Your task to perform on an android device: Go to calendar. Show me events next week Image 0: 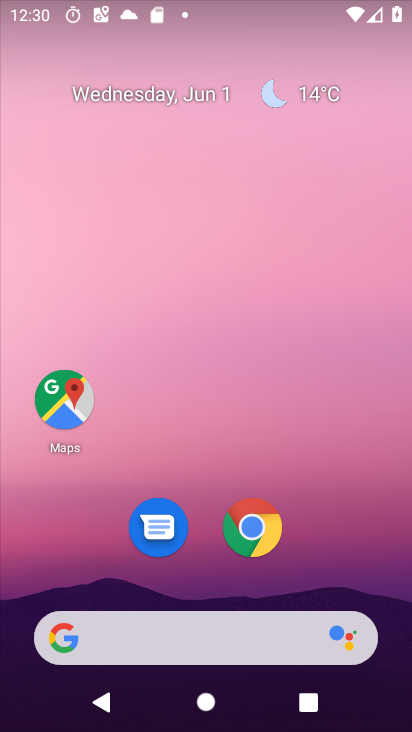
Step 0: drag from (364, 392) to (380, 0)
Your task to perform on an android device: Go to calendar. Show me events next week Image 1: 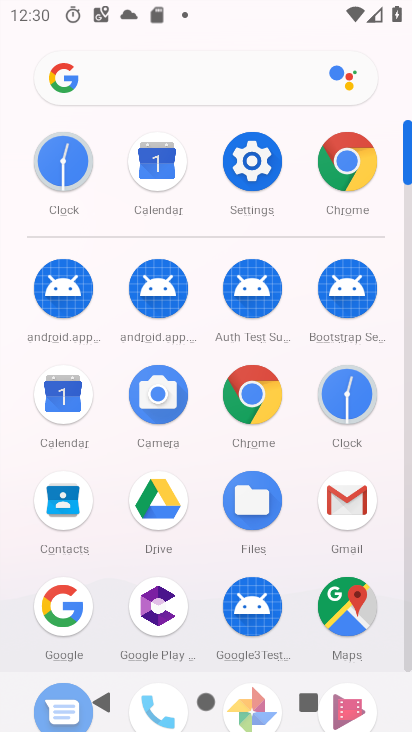
Step 1: click (151, 161)
Your task to perform on an android device: Go to calendar. Show me events next week Image 2: 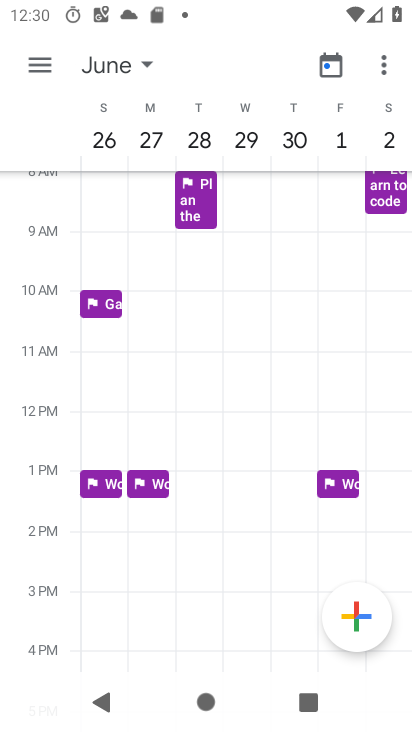
Step 2: click (321, 67)
Your task to perform on an android device: Go to calendar. Show me events next week Image 3: 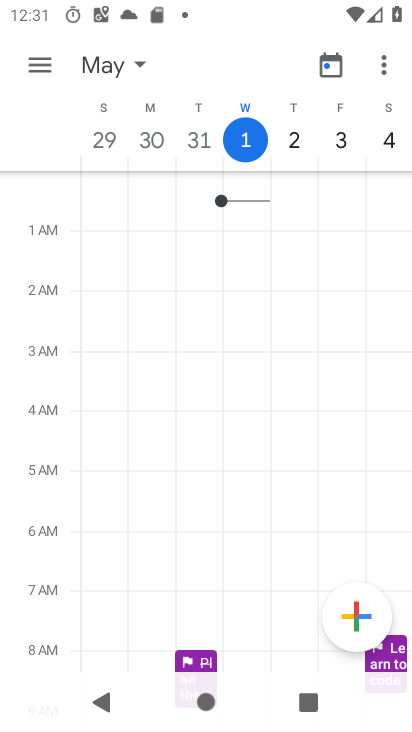
Step 3: drag from (329, 395) to (0, 459)
Your task to perform on an android device: Go to calendar. Show me events next week Image 4: 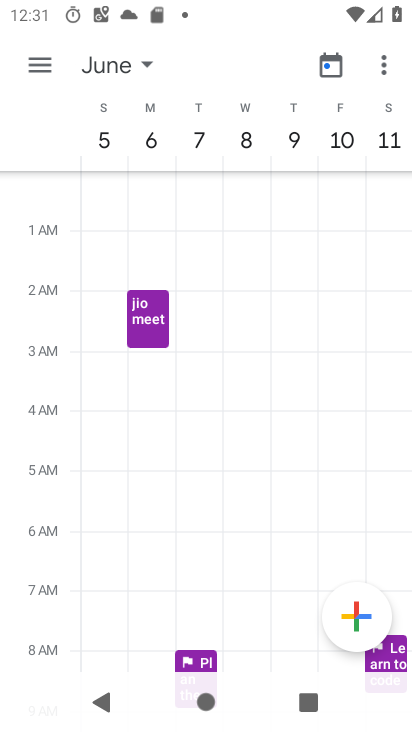
Step 4: click (44, 68)
Your task to perform on an android device: Go to calendar. Show me events next week Image 5: 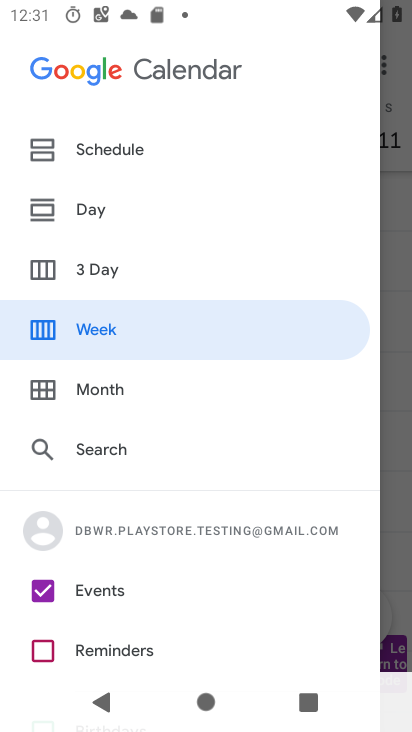
Step 5: drag from (157, 608) to (166, 661)
Your task to perform on an android device: Go to calendar. Show me events next week Image 6: 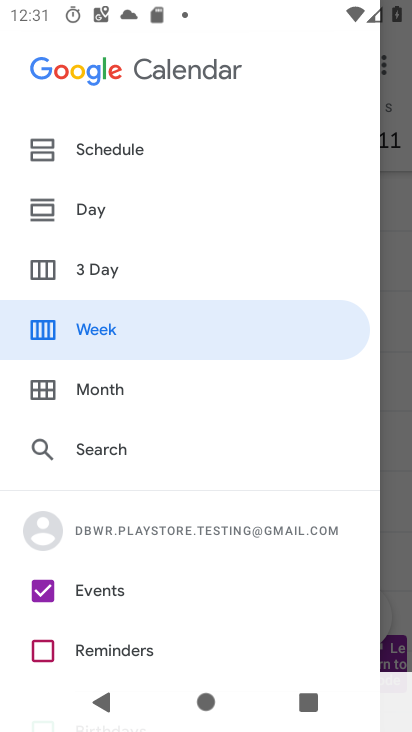
Step 6: click (91, 334)
Your task to perform on an android device: Go to calendar. Show me events next week Image 7: 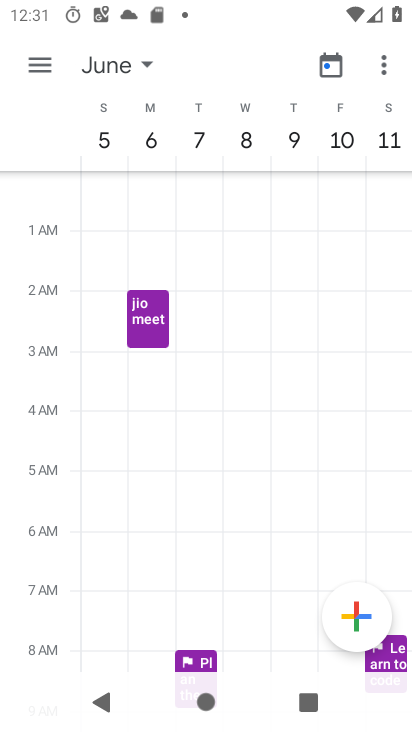
Step 7: task complete